Your task to perform on an android device: Go to Wikipedia Image 0: 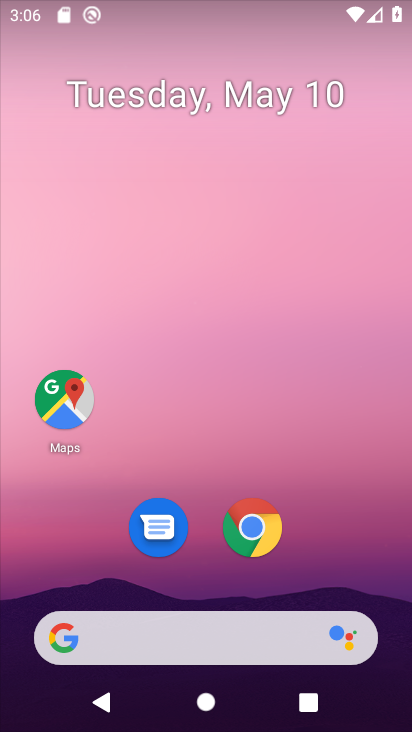
Step 0: click (256, 529)
Your task to perform on an android device: Go to Wikipedia Image 1: 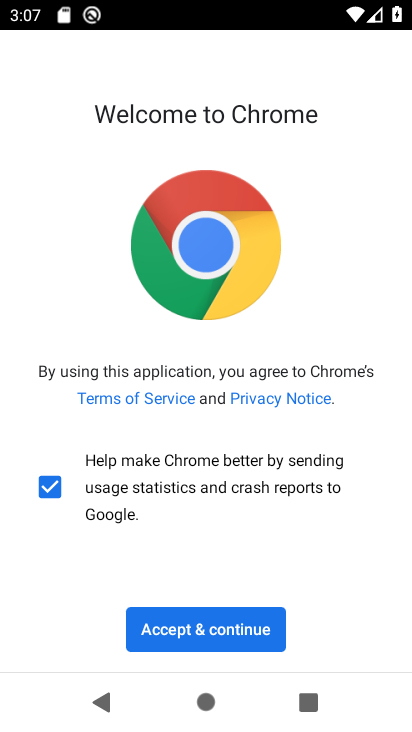
Step 1: click (214, 626)
Your task to perform on an android device: Go to Wikipedia Image 2: 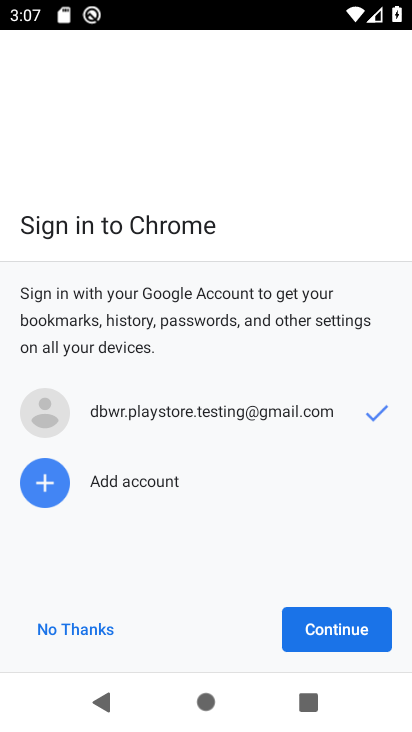
Step 2: click (329, 626)
Your task to perform on an android device: Go to Wikipedia Image 3: 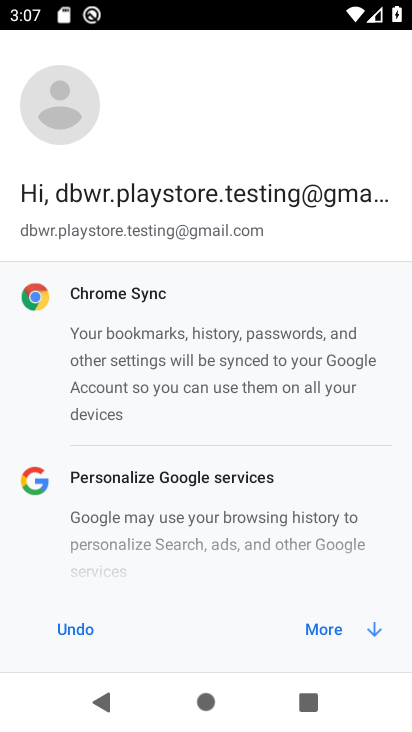
Step 3: click (329, 629)
Your task to perform on an android device: Go to Wikipedia Image 4: 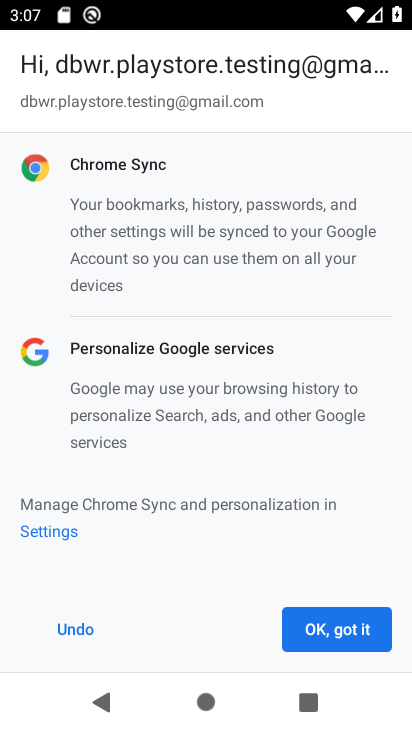
Step 4: click (329, 629)
Your task to perform on an android device: Go to Wikipedia Image 5: 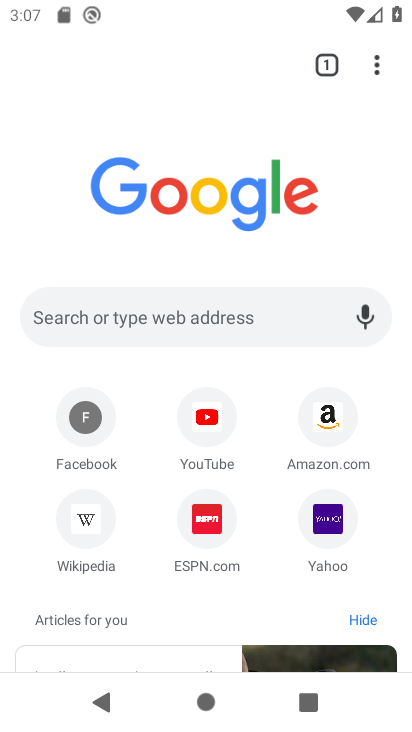
Step 5: click (116, 316)
Your task to perform on an android device: Go to Wikipedia Image 6: 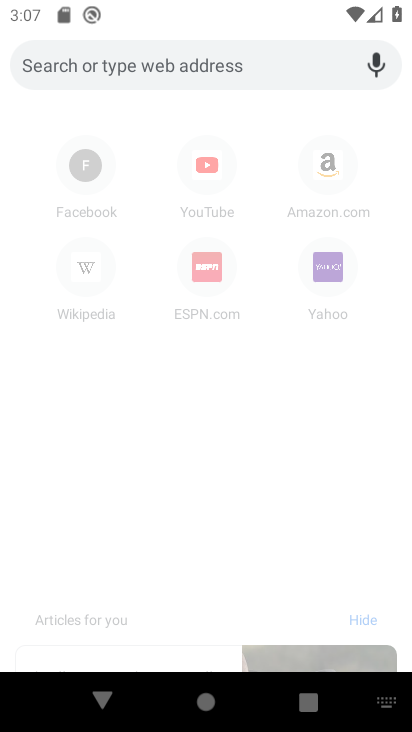
Step 6: type "wikipedia"
Your task to perform on an android device: Go to Wikipedia Image 7: 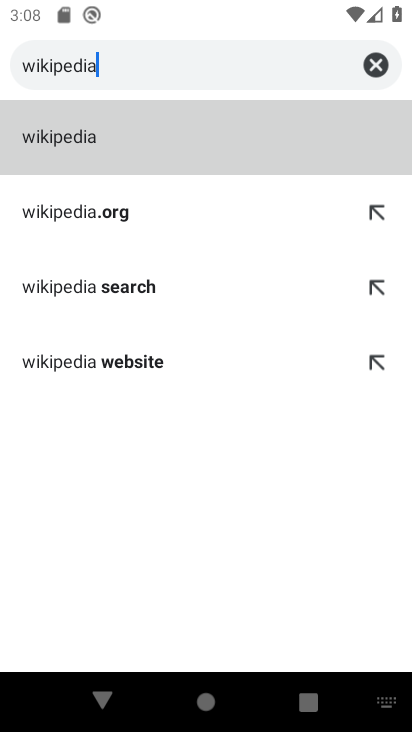
Step 7: click (78, 127)
Your task to perform on an android device: Go to Wikipedia Image 8: 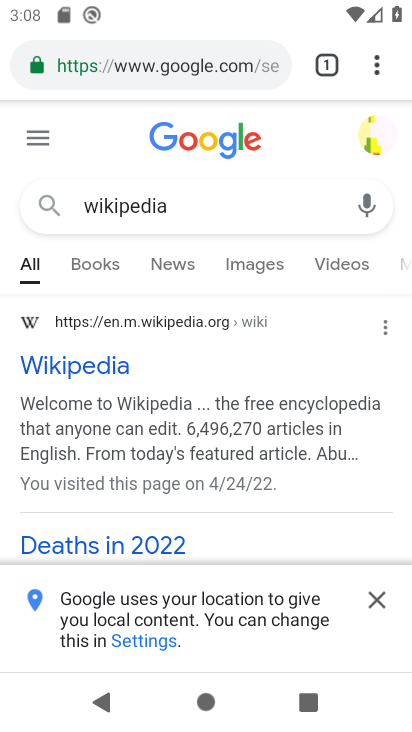
Step 8: task complete